Your task to perform on an android device: What's on my calendar tomorrow? Image 0: 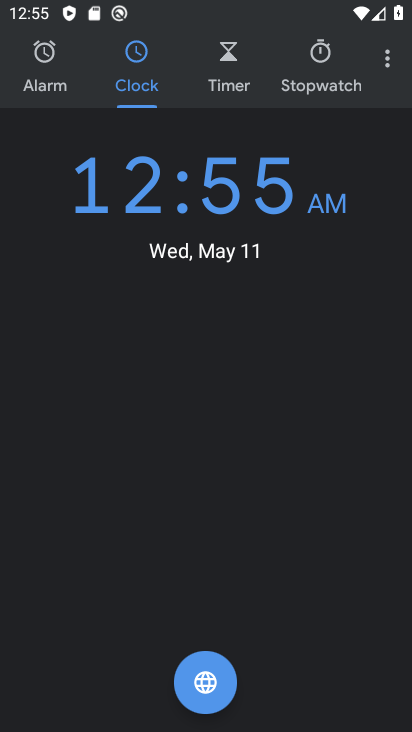
Step 0: press home button
Your task to perform on an android device: What's on my calendar tomorrow? Image 1: 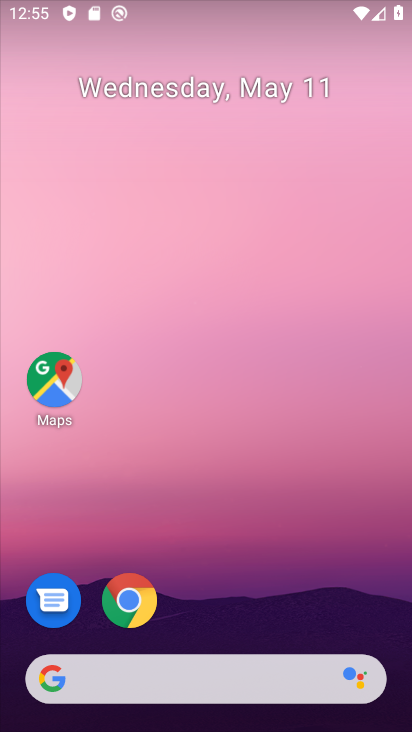
Step 1: drag from (294, 583) to (299, 277)
Your task to perform on an android device: What's on my calendar tomorrow? Image 2: 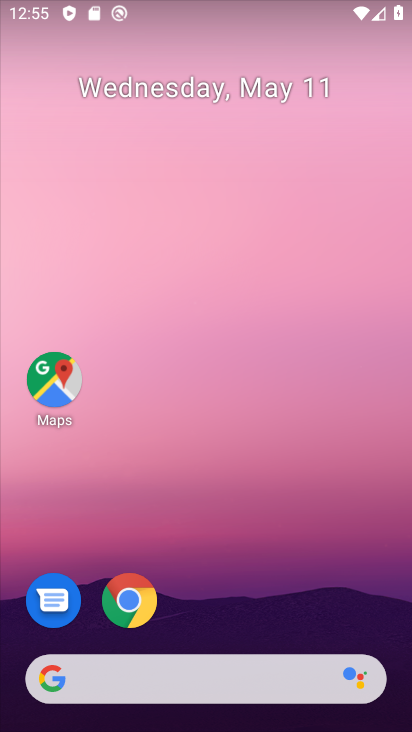
Step 2: drag from (268, 534) to (329, 236)
Your task to perform on an android device: What's on my calendar tomorrow? Image 3: 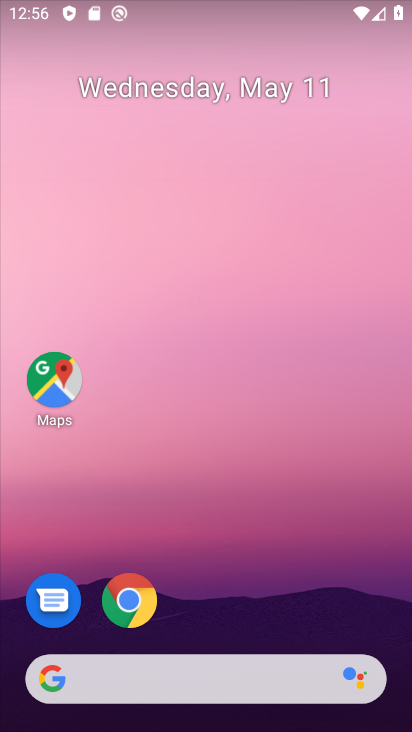
Step 3: drag from (224, 626) to (267, 230)
Your task to perform on an android device: What's on my calendar tomorrow? Image 4: 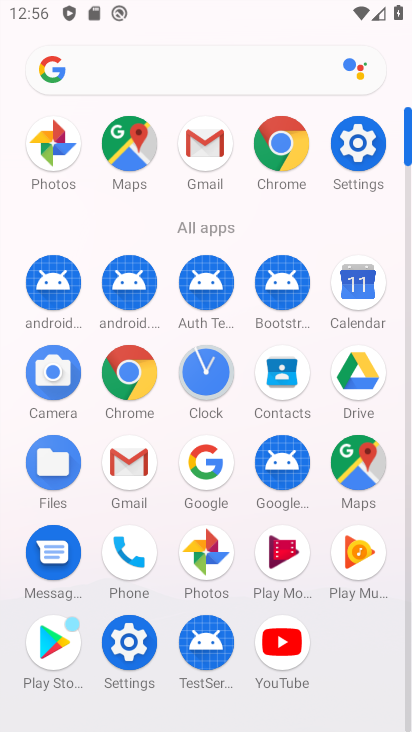
Step 4: click (351, 280)
Your task to perform on an android device: What's on my calendar tomorrow? Image 5: 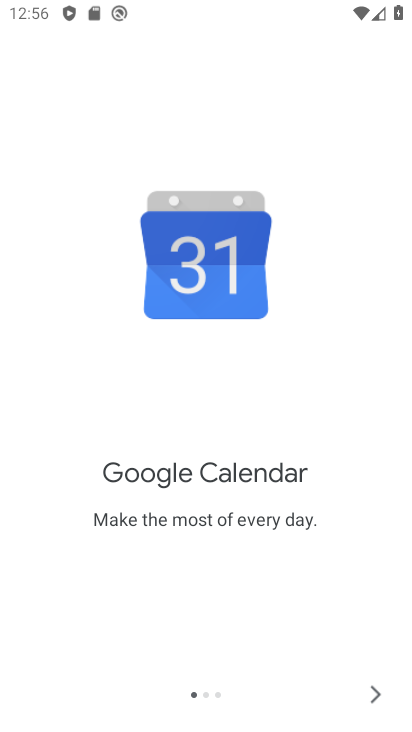
Step 5: click (382, 690)
Your task to perform on an android device: What's on my calendar tomorrow? Image 6: 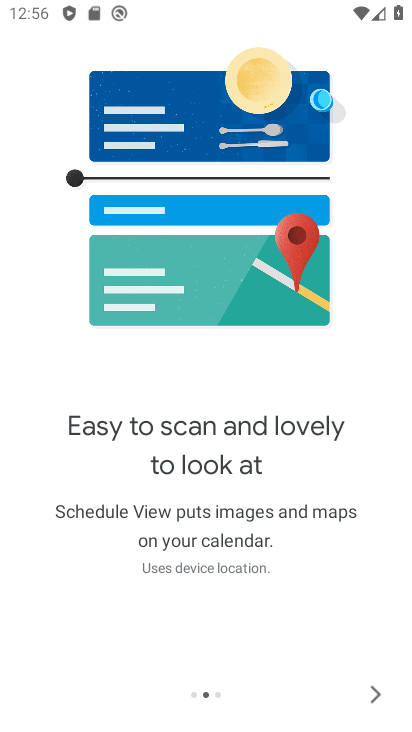
Step 6: click (376, 692)
Your task to perform on an android device: What's on my calendar tomorrow? Image 7: 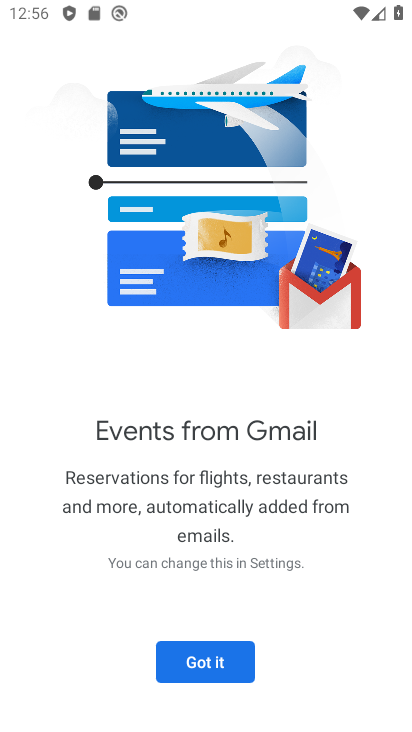
Step 7: click (227, 663)
Your task to perform on an android device: What's on my calendar tomorrow? Image 8: 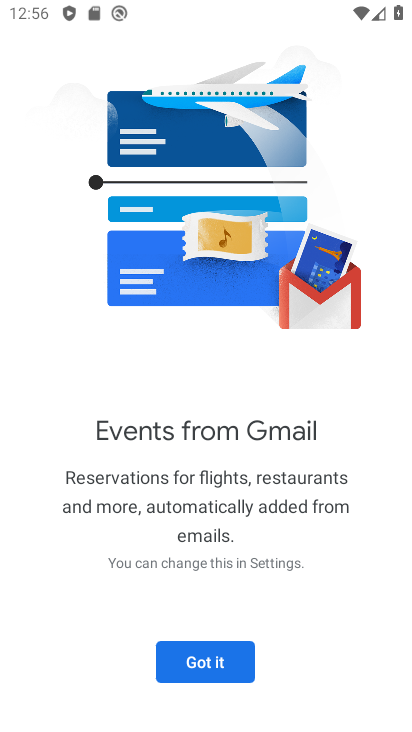
Step 8: click (225, 660)
Your task to perform on an android device: What's on my calendar tomorrow? Image 9: 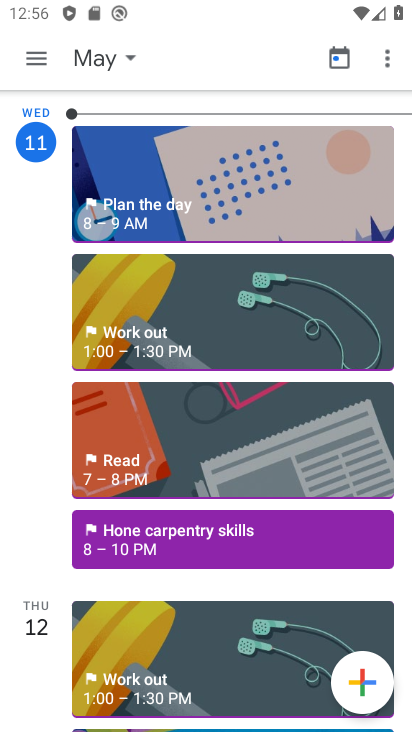
Step 9: click (28, 54)
Your task to perform on an android device: What's on my calendar tomorrow? Image 10: 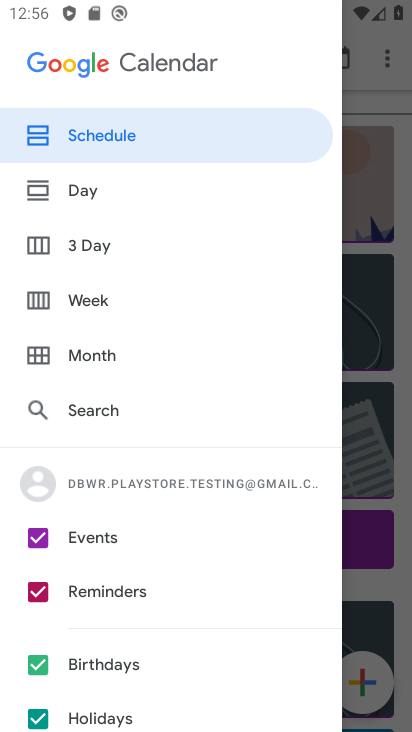
Step 10: click (118, 351)
Your task to perform on an android device: What's on my calendar tomorrow? Image 11: 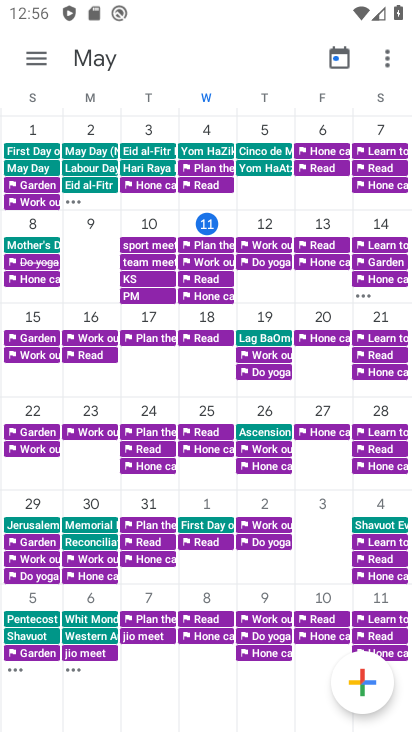
Step 11: click (211, 224)
Your task to perform on an android device: What's on my calendar tomorrow? Image 12: 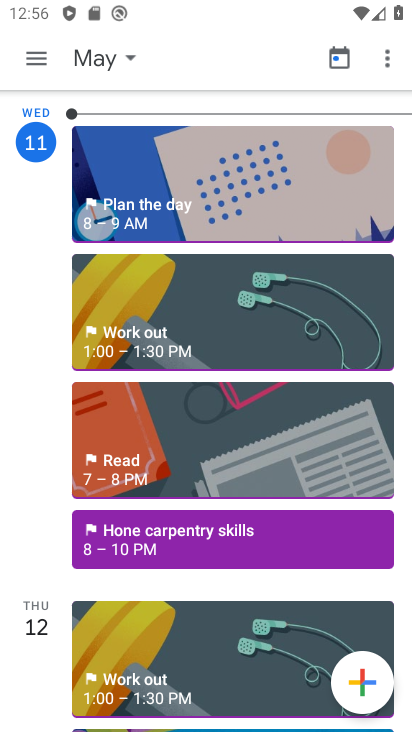
Step 12: press back button
Your task to perform on an android device: What's on my calendar tomorrow? Image 13: 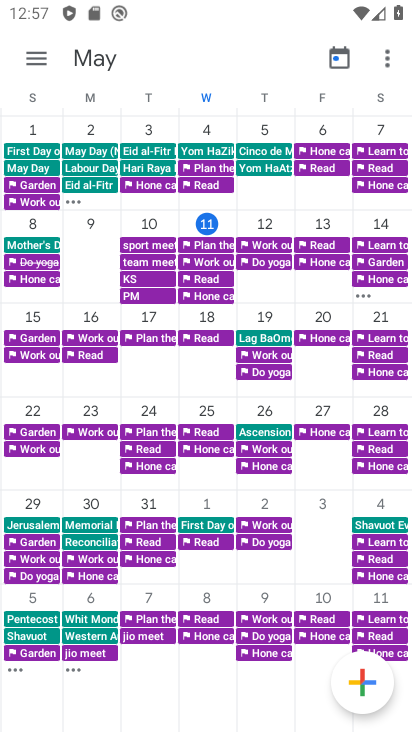
Step 13: click (250, 218)
Your task to perform on an android device: What's on my calendar tomorrow? Image 14: 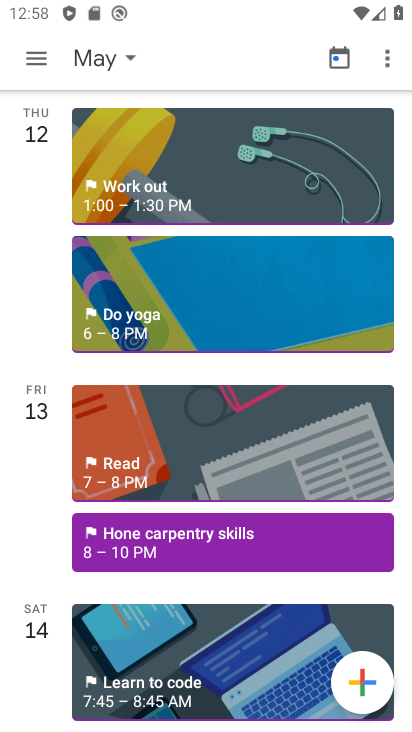
Step 14: task complete